Your task to perform on an android device: When is my next meeting? Image 0: 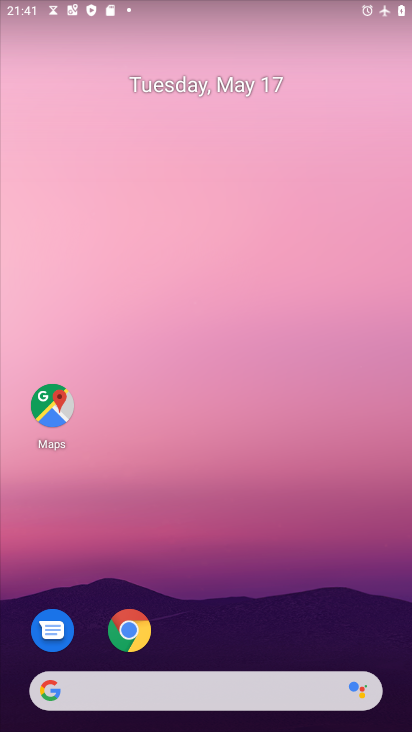
Step 0: drag from (237, 597) to (95, 212)
Your task to perform on an android device: When is my next meeting? Image 1: 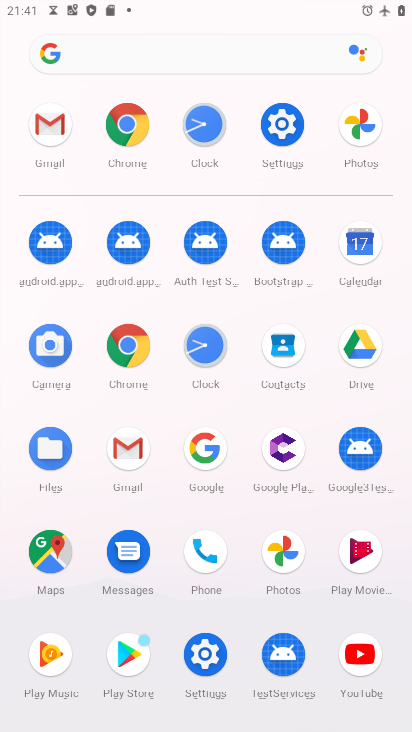
Step 1: click (351, 236)
Your task to perform on an android device: When is my next meeting? Image 2: 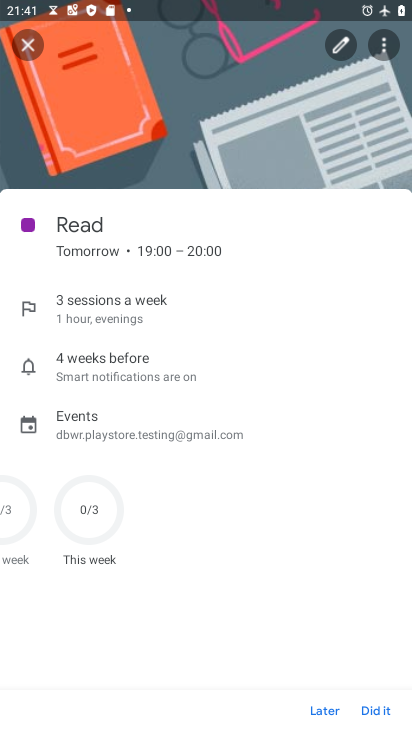
Step 2: task complete